Your task to perform on an android device: delete a single message in the gmail app Image 0: 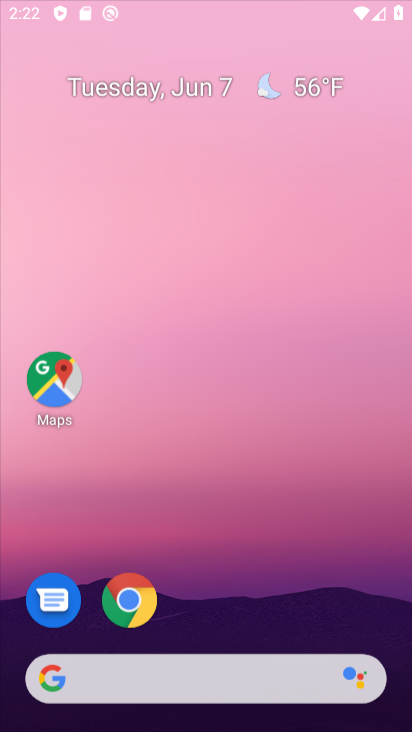
Step 0: click (348, 148)
Your task to perform on an android device: delete a single message in the gmail app Image 1: 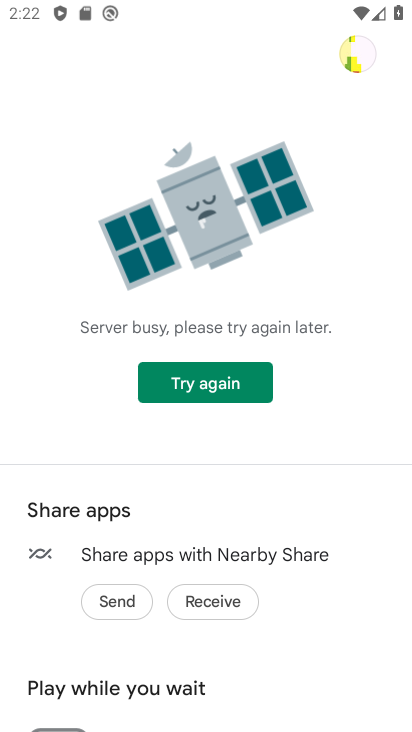
Step 1: press back button
Your task to perform on an android device: delete a single message in the gmail app Image 2: 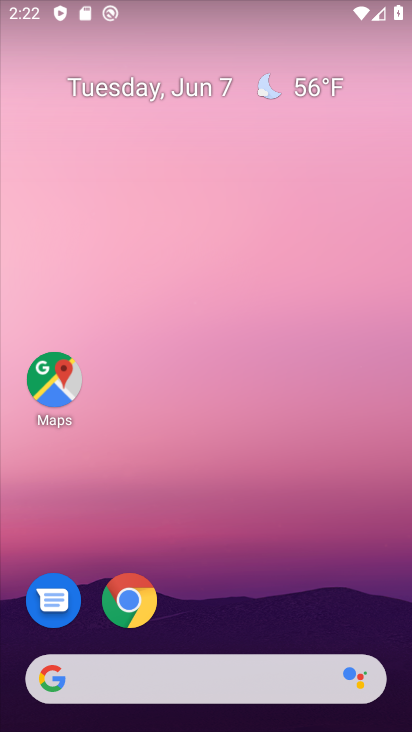
Step 2: drag from (395, 683) to (359, 73)
Your task to perform on an android device: delete a single message in the gmail app Image 3: 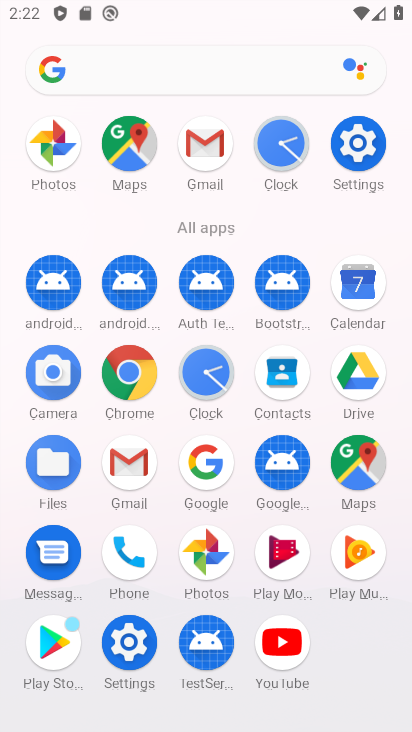
Step 3: click (126, 462)
Your task to perform on an android device: delete a single message in the gmail app Image 4: 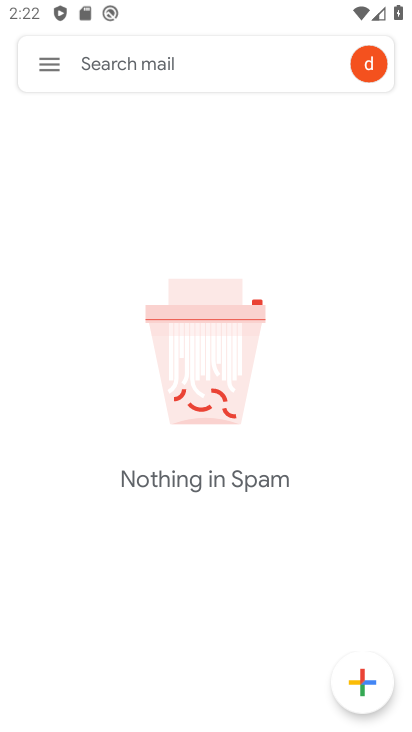
Step 4: click (44, 68)
Your task to perform on an android device: delete a single message in the gmail app Image 5: 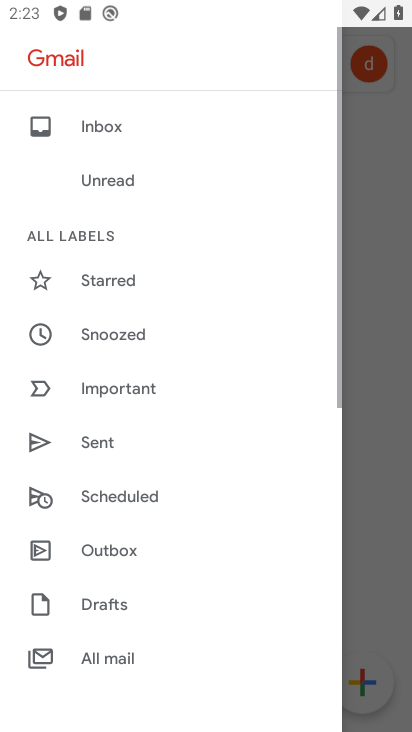
Step 5: click (88, 116)
Your task to perform on an android device: delete a single message in the gmail app Image 6: 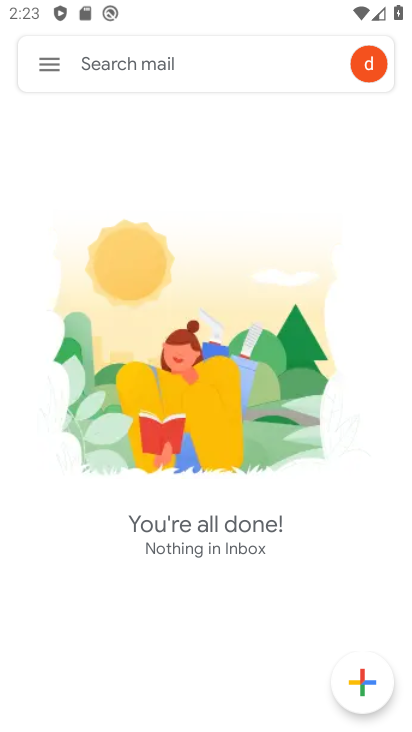
Step 6: task complete